Your task to perform on an android device: Open privacy settings Image 0: 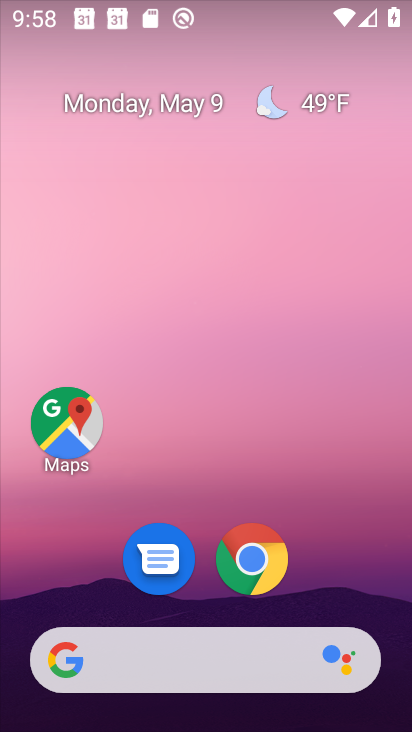
Step 0: drag from (203, 723) to (202, 158)
Your task to perform on an android device: Open privacy settings Image 1: 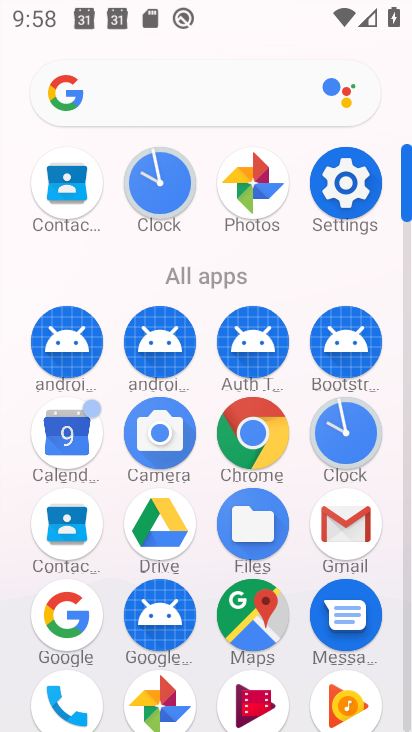
Step 1: click (350, 183)
Your task to perform on an android device: Open privacy settings Image 2: 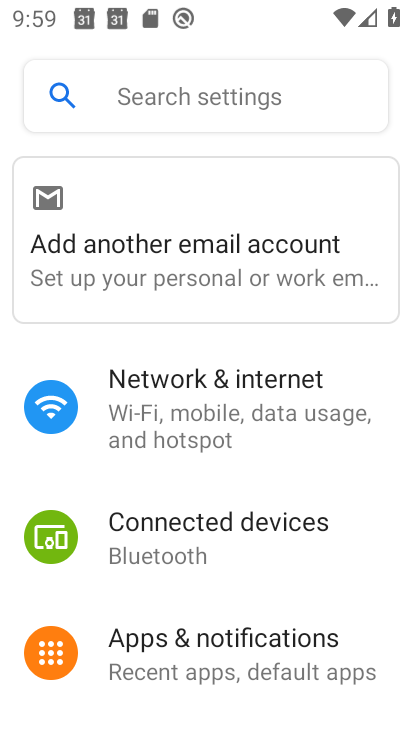
Step 2: drag from (376, 672) to (375, 281)
Your task to perform on an android device: Open privacy settings Image 3: 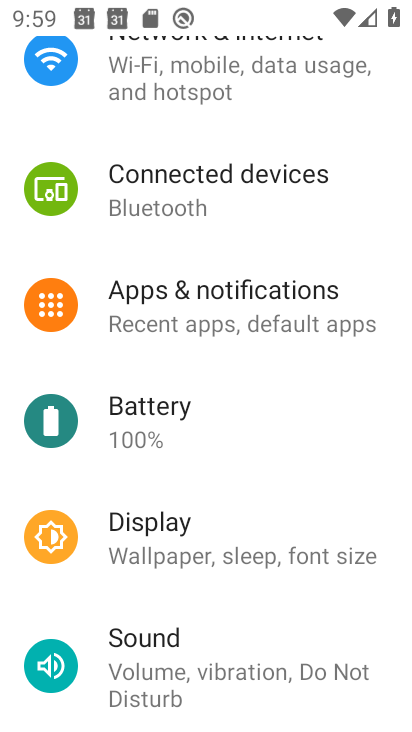
Step 3: drag from (280, 694) to (288, 301)
Your task to perform on an android device: Open privacy settings Image 4: 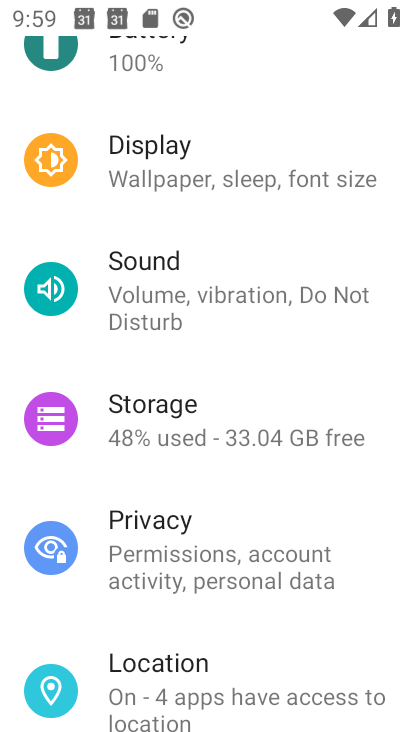
Step 4: click (186, 549)
Your task to perform on an android device: Open privacy settings Image 5: 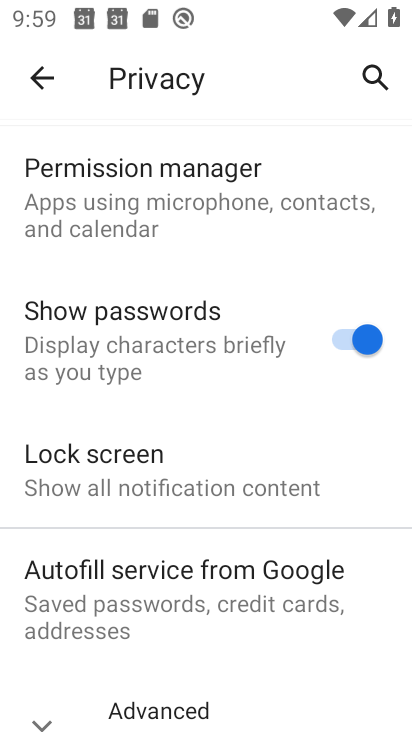
Step 5: task complete